Your task to perform on an android device: View the shopping cart on ebay.com. Search for bose soundlink on ebay.com, select the first entry, and add it to the cart. Image 0: 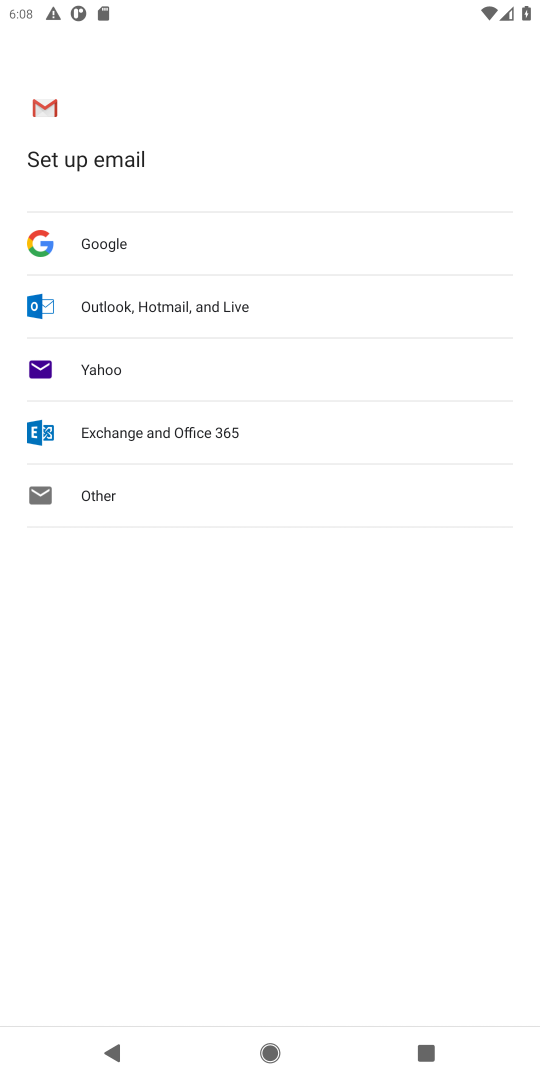
Step 0: press home button
Your task to perform on an android device: View the shopping cart on ebay.com. Search for bose soundlink on ebay.com, select the first entry, and add it to the cart. Image 1: 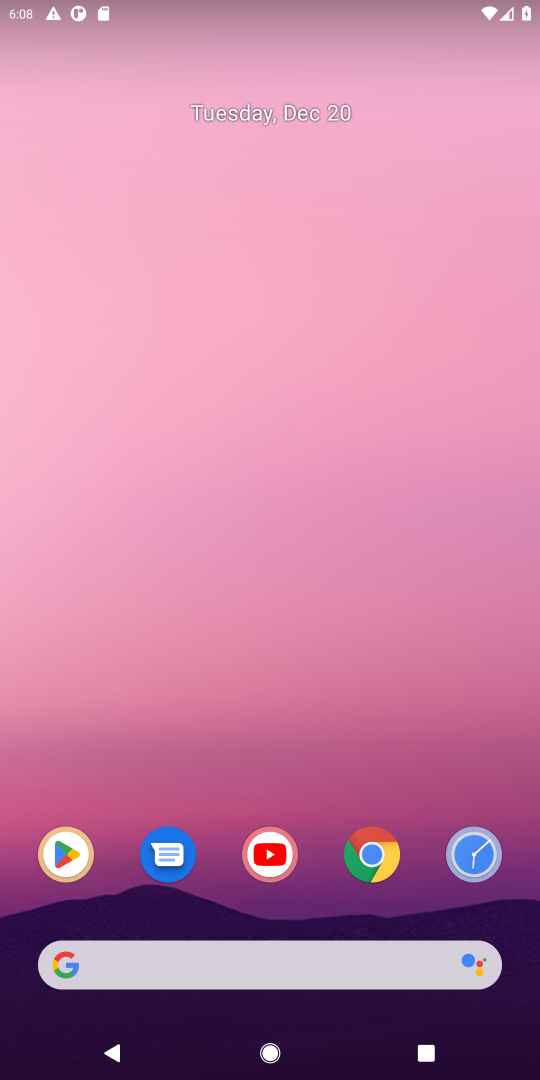
Step 1: click (380, 857)
Your task to perform on an android device: View the shopping cart on ebay.com. Search for bose soundlink on ebay.com, select the first entry, and add it to the cart. Image 2: 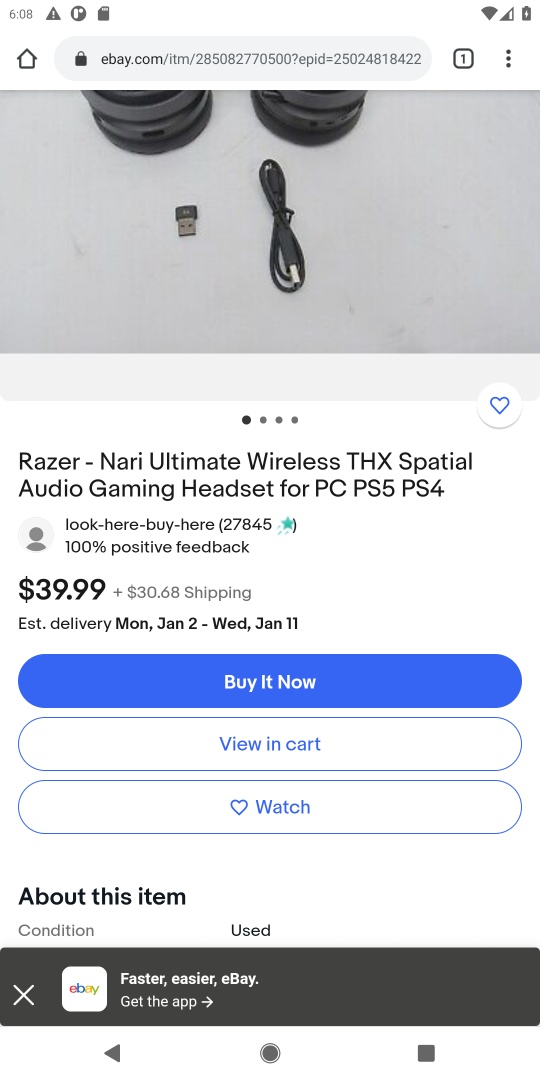
Step 2: drag from (318, 277) to (308, 820)
Your task to perform on an android device: View the shopping cart on ebay.com. Search for bose soundlink on ebay.com, select the first entry, and add it to the cart. Image 3: 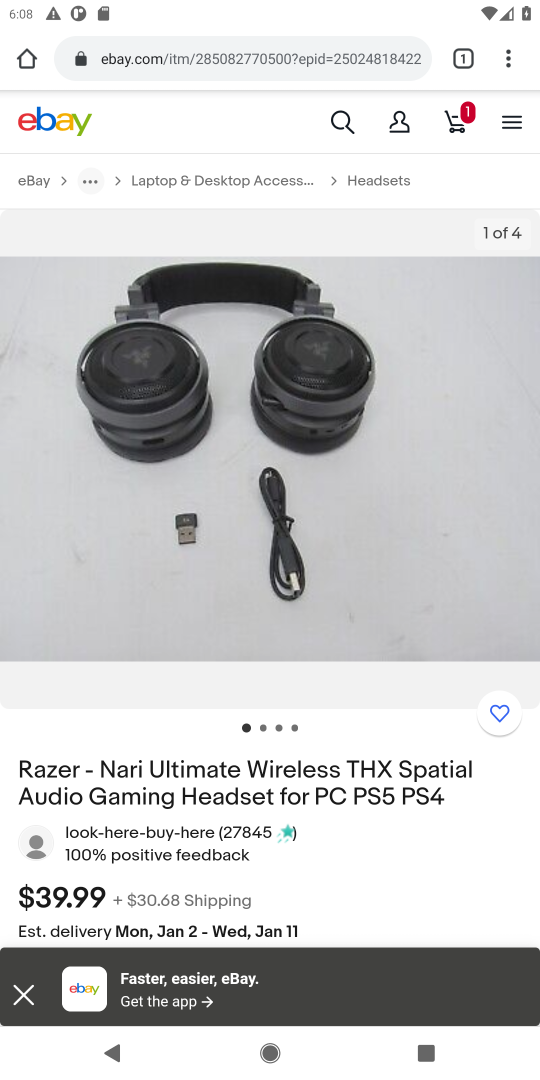
Step 3: click (460, 121)
Your task to perform on an android device: View the shopping cart on ebay.com. Search for bose soundlink on ebay.com, select the first entry, and add it to the cart. Image 4: 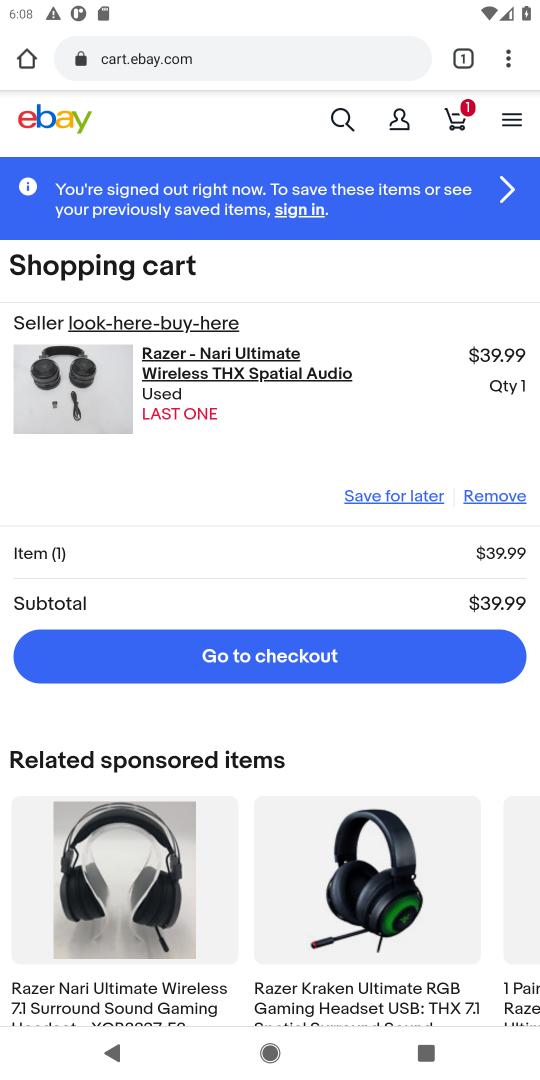
Step 4: click (335, 120)
Your task to perform on an android device: View the shopping cart on ebay.com. Search for bose soundlink on ebay.com, select the first entry, and add it to the cart. Image 5: 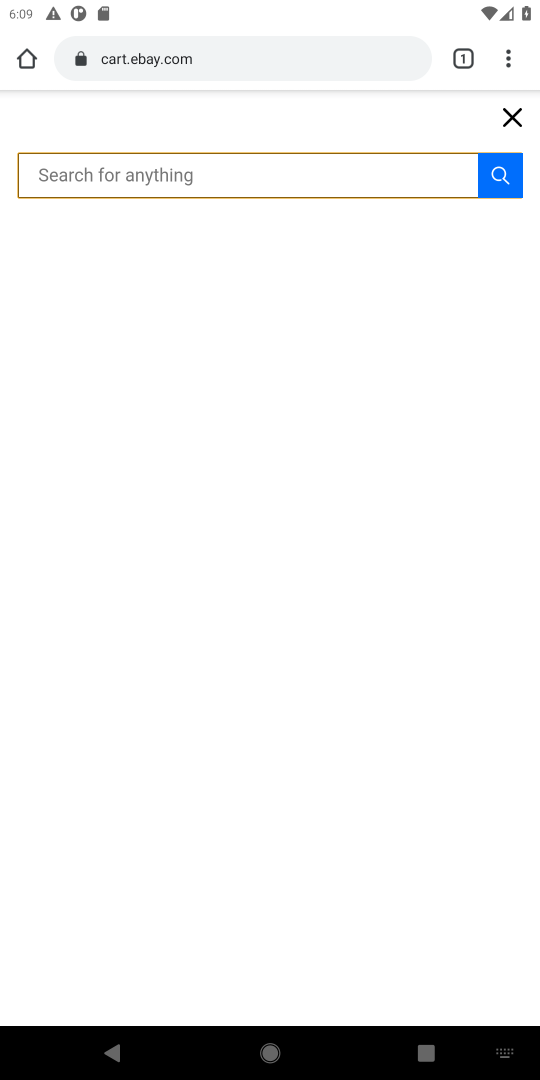
Step 5: type "bose soundlink"
Your task to perform on an android device: View the shopping cart on ebay.com. Search for bose soundlink on ebay.com, select the first entry, and add it to the cart. Image 6: 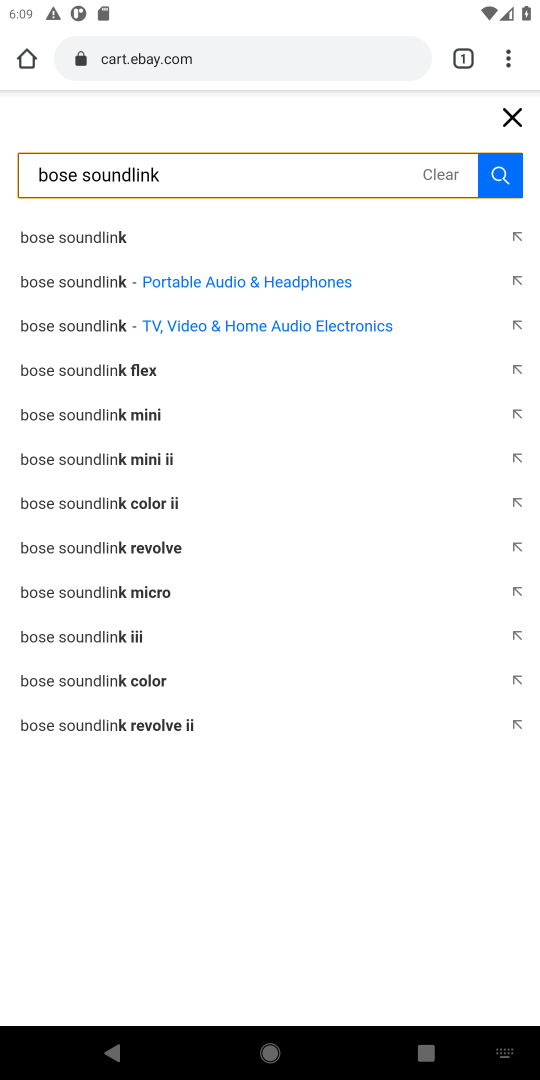
Step 6: click (94, 248)
Your task to perform on an android device: View the shopping cart on ebay.com. Search for bose soundlink on ebay.com, select the first entry, and add it to the cart. Image 7: 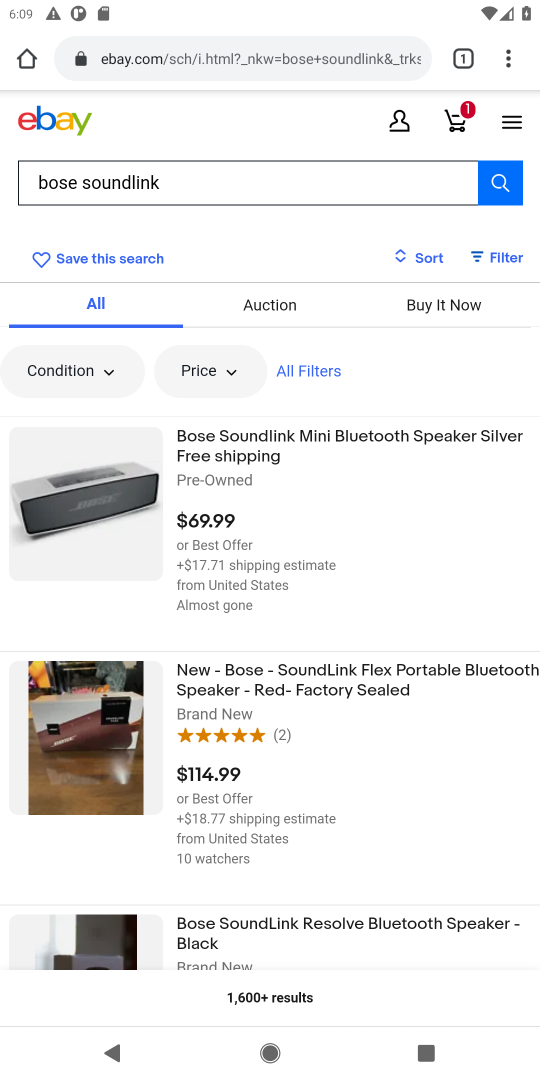
Step 7: click (219, 456)
Your task to perform on an android device: View the shopping cart on ebay.com. Search for bose soundlink on ebay.com, select the first entry, and add it to the cart. Image 8: 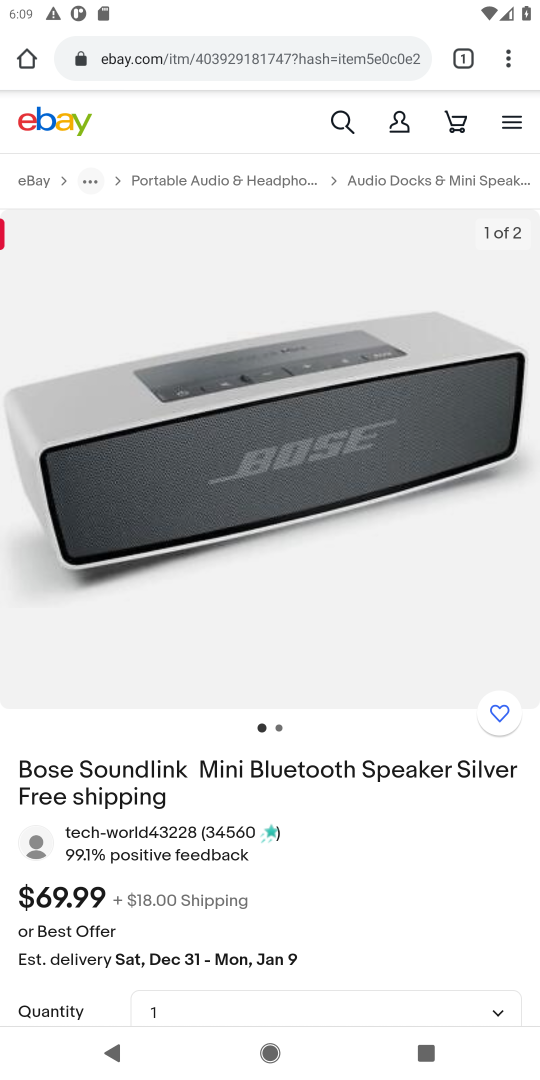
Step 8: drag from (221, 792) to (198, 402)
Your task to perform on an android device: View the shopping cart on ebay.com. Search for bose soundlink on ebay.com, select the first entry, and add it to the cart. Image 9: 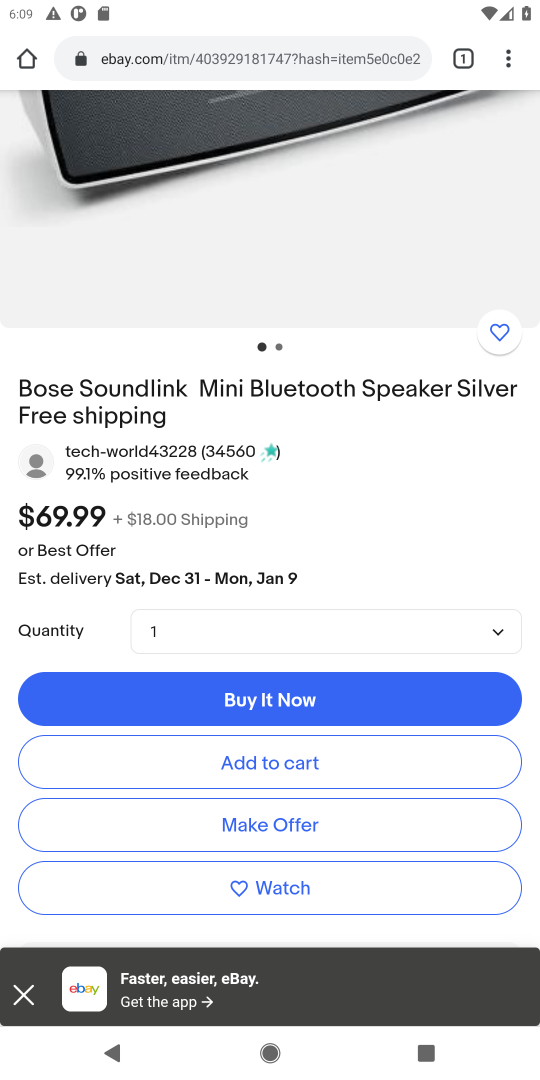
Step 9: click (240, 767)
Your task to perform on an android device: View the shopping cart on ebay.com. Search for bose soundlink on ebay.com, select the first entry, and add it to the cart. Image 10: 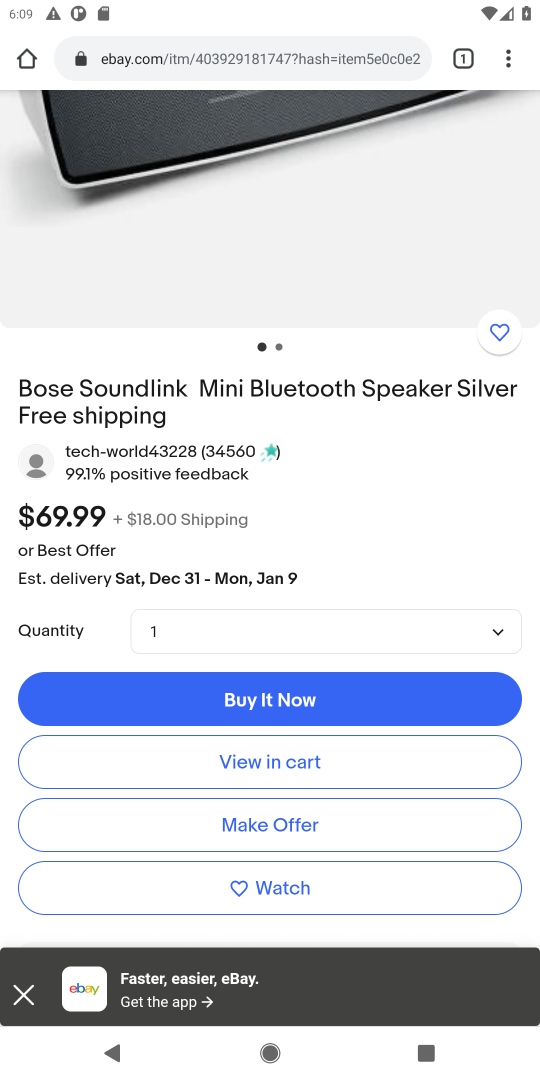
Step 10: task complete